Your task to perform on an android device: Do I have any events tomorrow? Image 0: 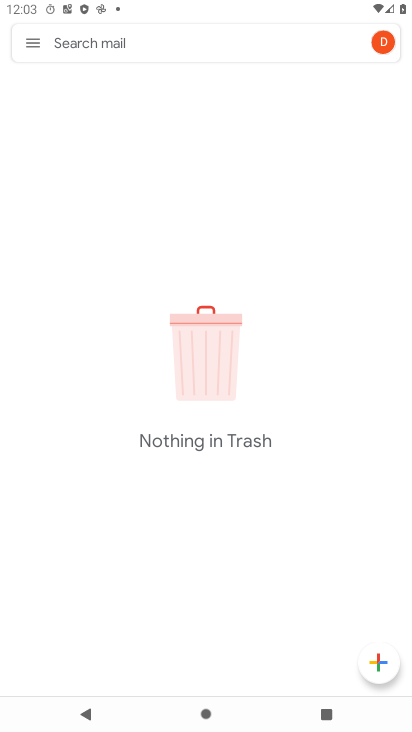
Step 0: press home button
Your task to perform on an android device: Do I have any events tomorrow? Image 1: 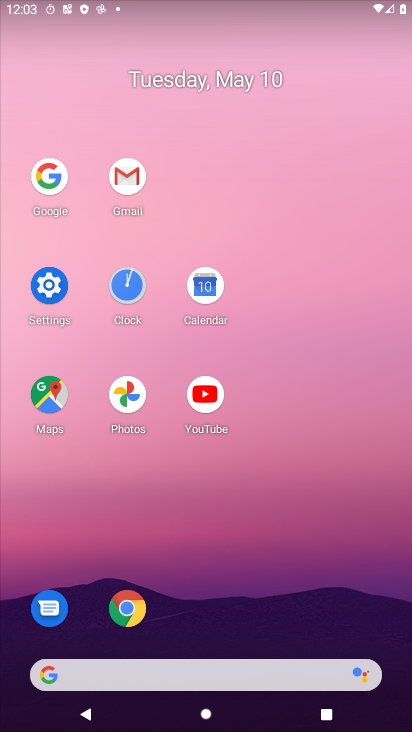
Step 1: click (206, 282)
Your task to perform on an android device: Do I have any events tomorrow? Image 2: 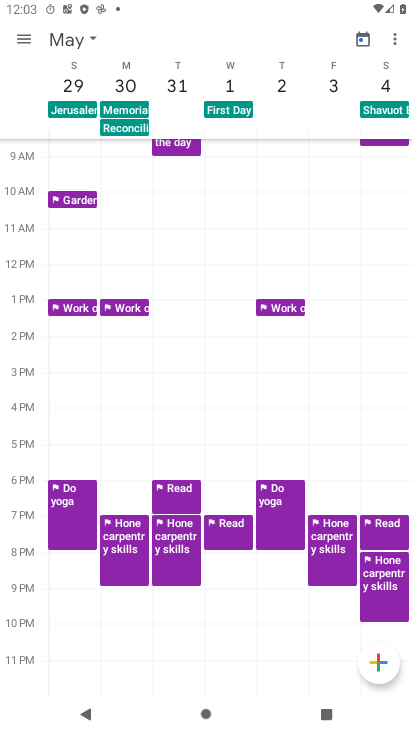
Step 2: click (31, 42)
Your task to perform on an android device: Do I have any events tomorrow? Image 3: 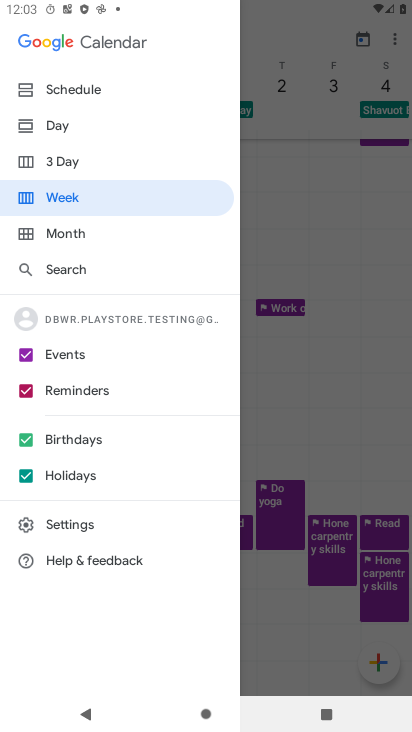
Step 3: click (67, 124)
Your task to perform on an android device: Do I have any events tomorrow? Image 4: 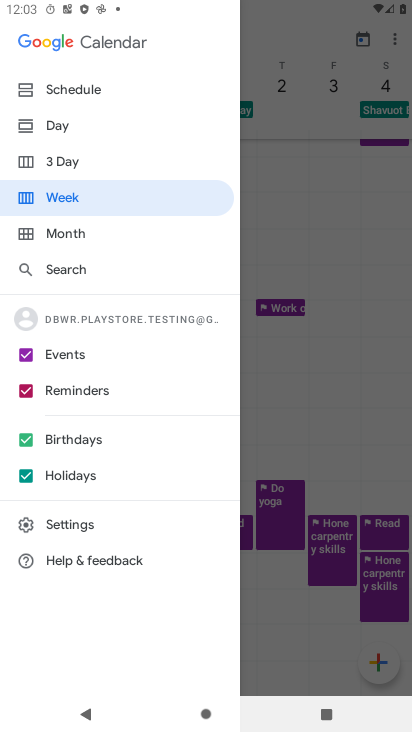
Step 4: click (71, 125)
Your task to perform on an android device: Do I have any events tomorrow? Image 5: 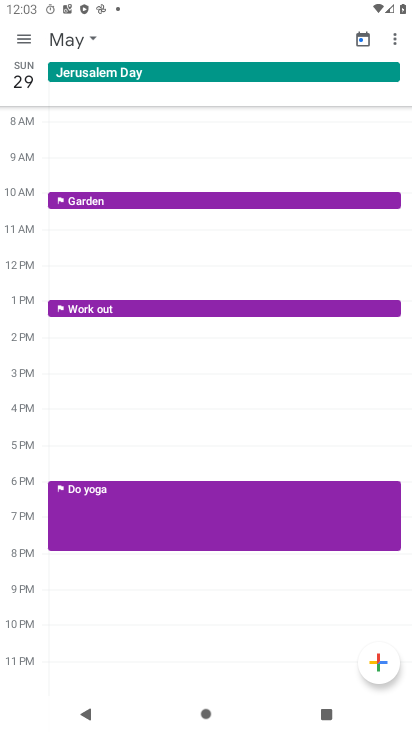
Step 5: click (88, 36)
Your task to perform on an android device: Do I have any events tomorrow? Image 6: 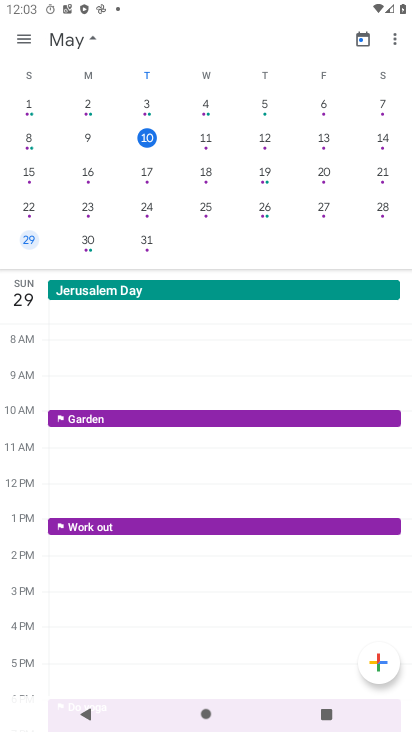
Step 6: click (152, 138)
Your task to perform on an android device: Do I have any events tomorrow? Image 7: 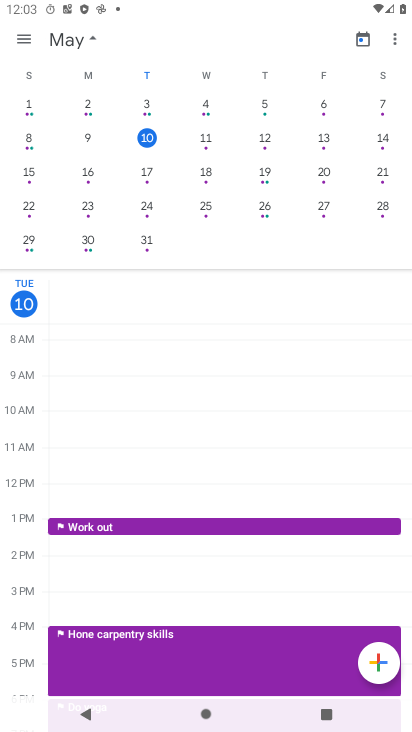
Step 7: task complete